Your task to perform on an android device: Search for lg ultragear on amazon.com, select the first entry, add it to the cart, then select checkout. Image 0: 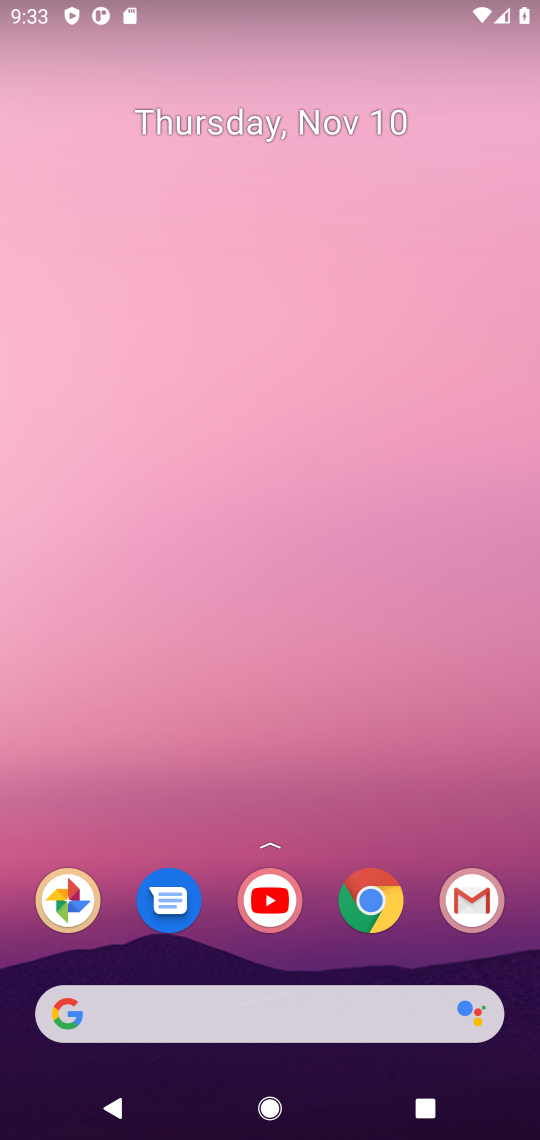
Step 0: click (375, 901)
Your task to perform on an android device: Search for lg ultragear on amazon.com, select the first entry, add it to the cart, then select checkout. Image 1: 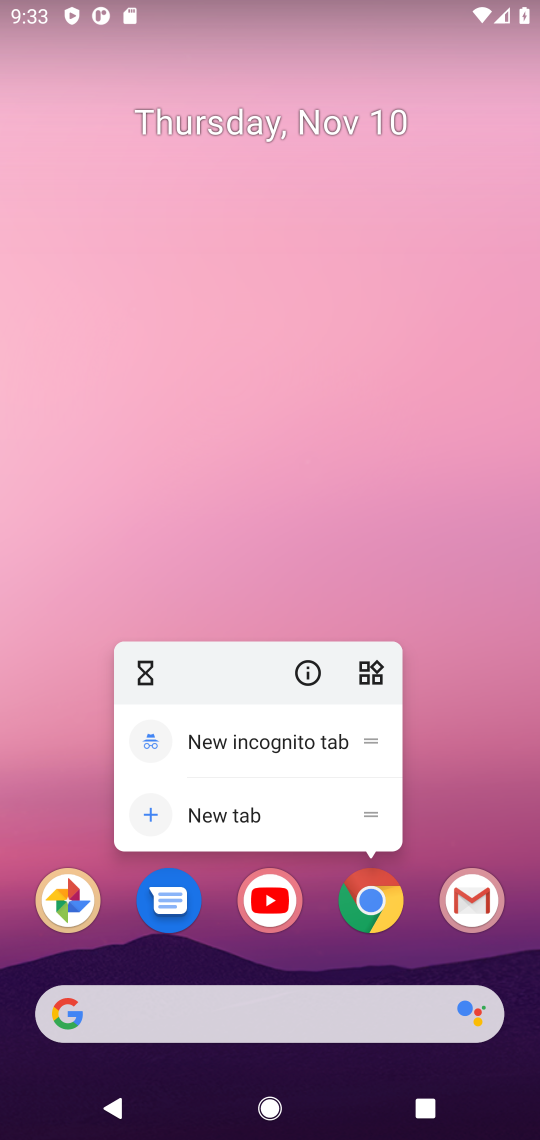
Step 1: click (362, 903)
Your task to perform on an android device: Search for lg ultragear on amazon.com, select the first entry, add it to the cart, then select checkout. Image 2: 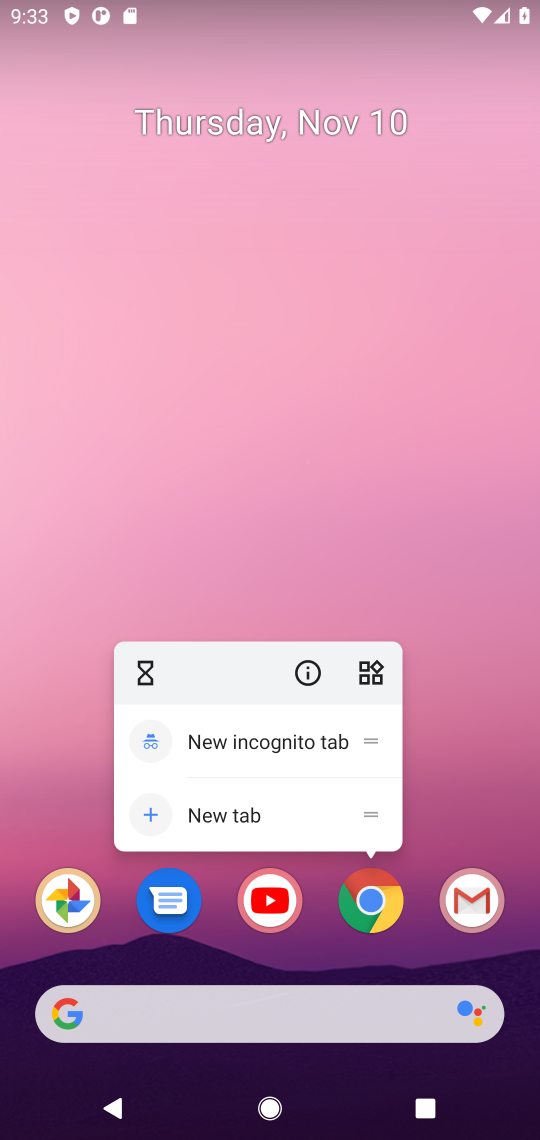
Step 2: click (362, 905)
Your task to perform on an android device: Search for lg ultragear on amazon.com, select the first entry, add it to the cart, then select checkout. Image 3: 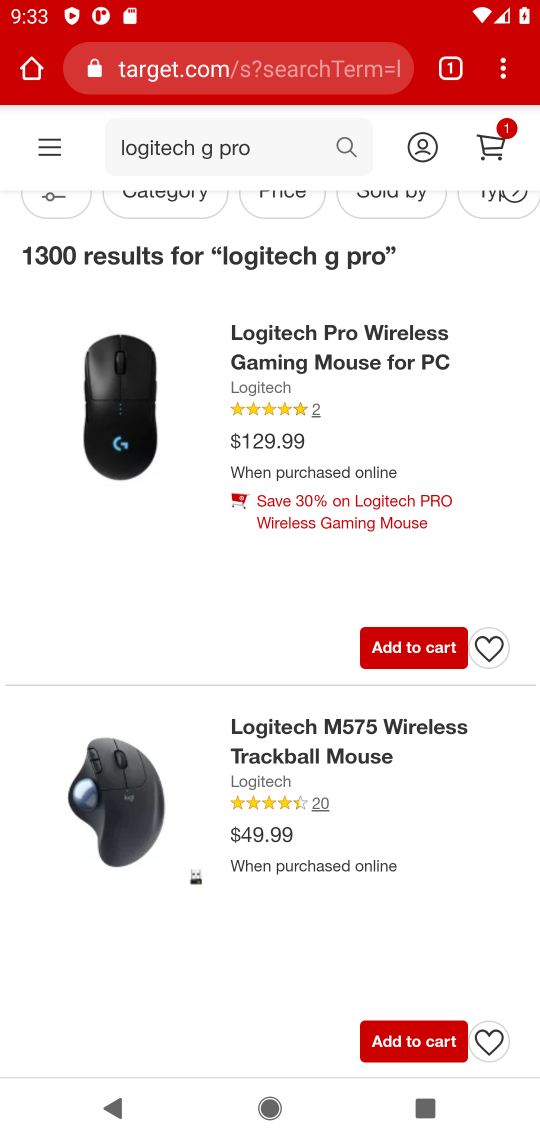
Step 3: click (281, 69)
Your task to perform on an android device: Search for lg ultragear on amazon.com, select the first entry, add it to the cart, then select checkout. Image 4: 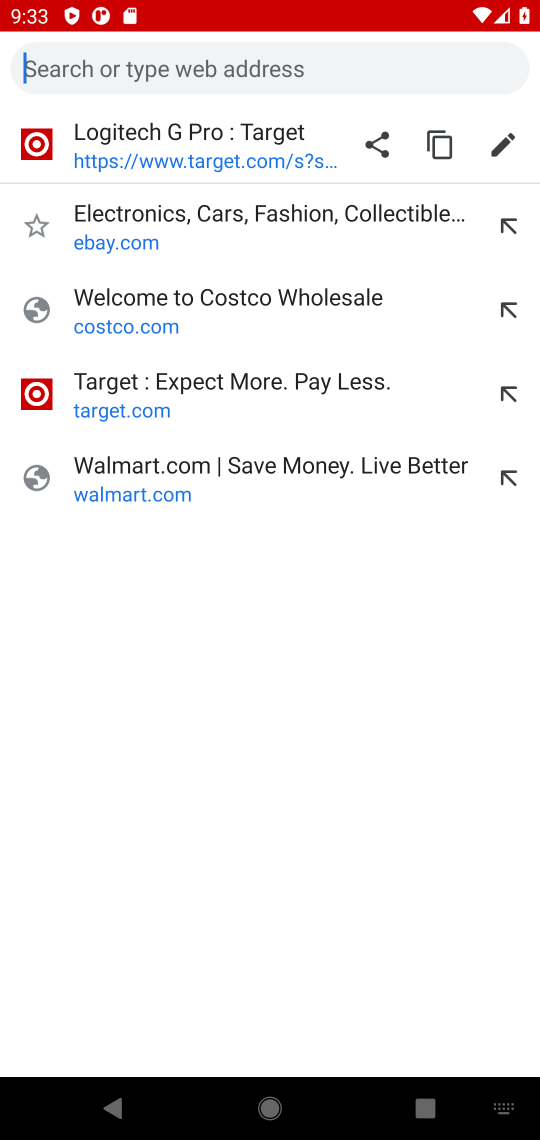
Step 4: type "amazon.com"
Your task to perform on an android device: Search for lg ultragear on amazon.com, select the first entry, add it to the cart, then select checkout. Image 5: 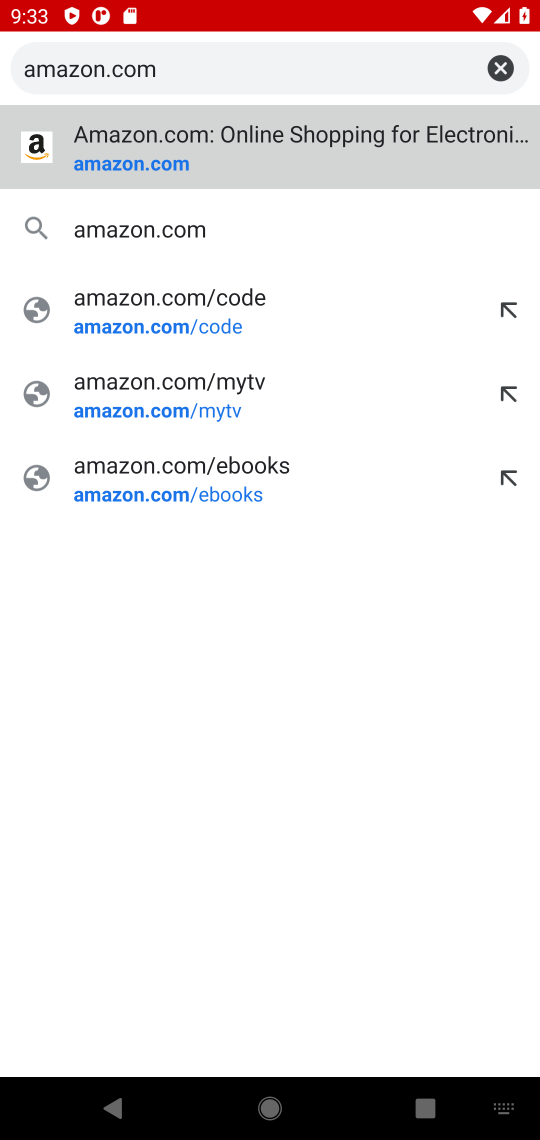
Step 5: press enter
Your task to perform on an android device: Search for lg ultragear on amazon.com, select the first entry, add it to the cart, then select checkout. Image 6: 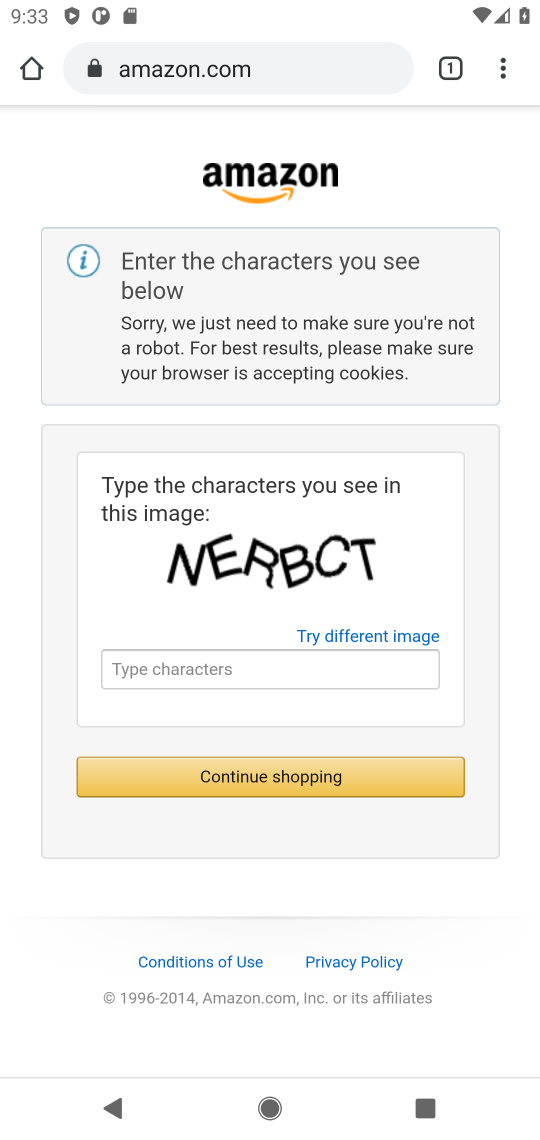
Step 6: click (177, 662)
Your task to perform on an android device: Search for lg ultragear on amazon.com, select the first entry, add it to the cart, then select checkout. Image 7: 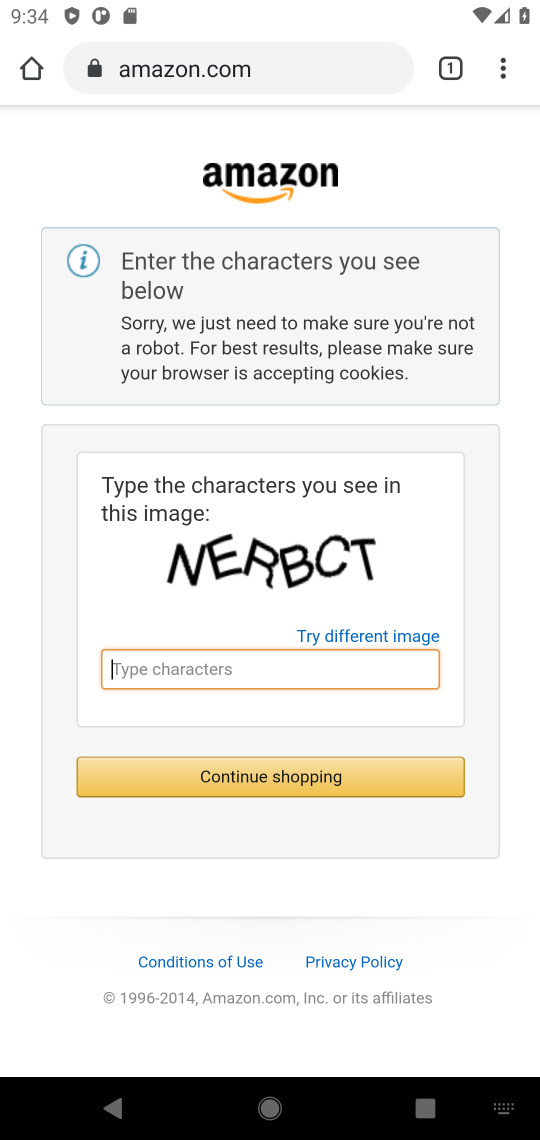
Step 7: type "NERBCT"
Your task to perform on an android device: Search for lg ultragear on amazon.com, select the first entry, add it to the cart, then select checkout. Image 8: 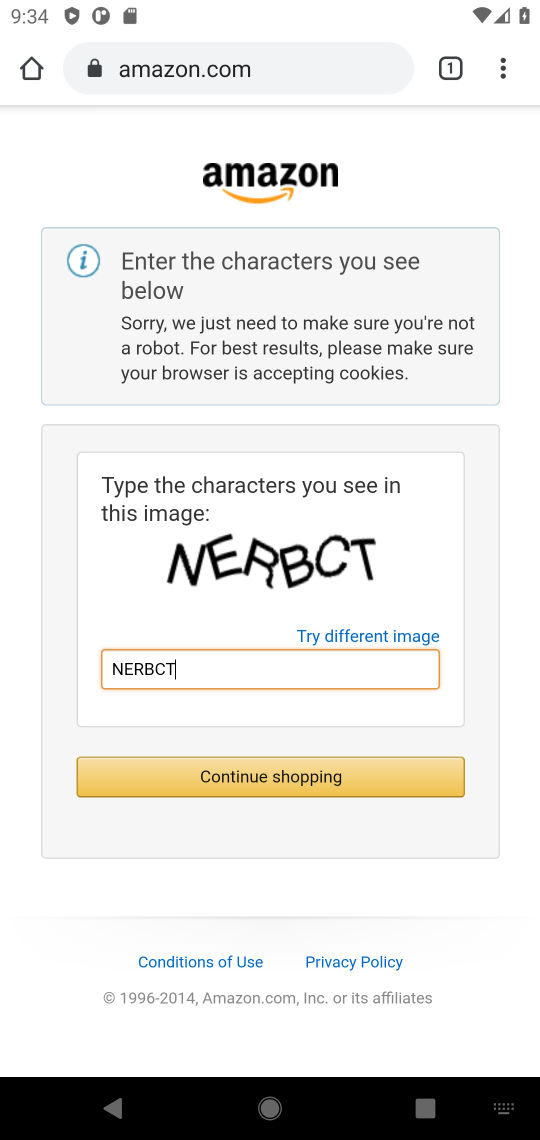
Step 8: press enter
Your task to perform on an android device: Search for lg ultragear on amazon.com, select the first entry, add it to the cart, then select checkout. Image 9: 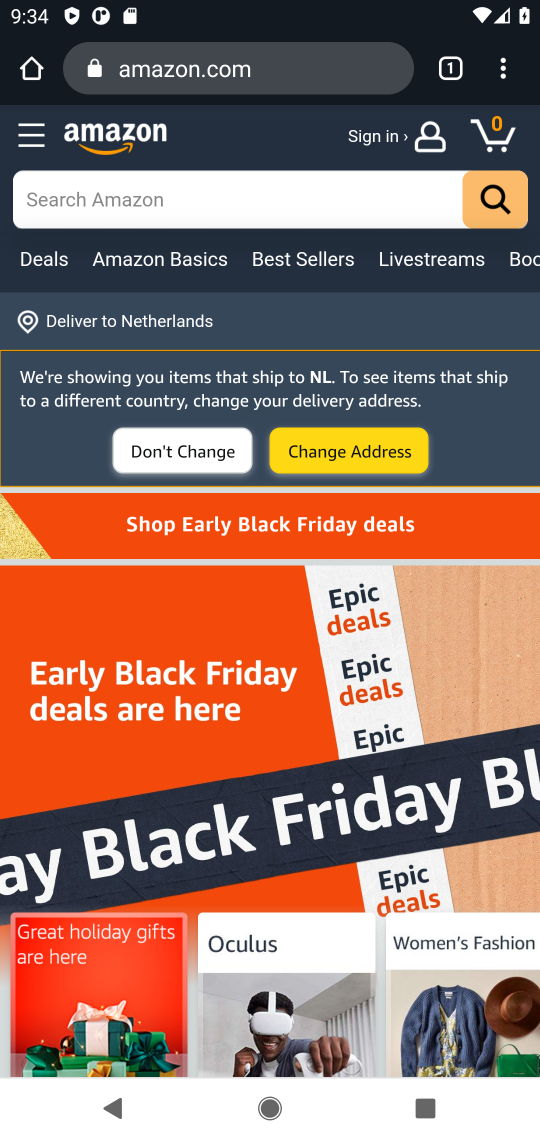
Step 9: click (125, 188)
Your task to perform on an android device: Search for lg ultragear on amazon.com, select the first entry, add it to the cart, then select checkout. Image 10: 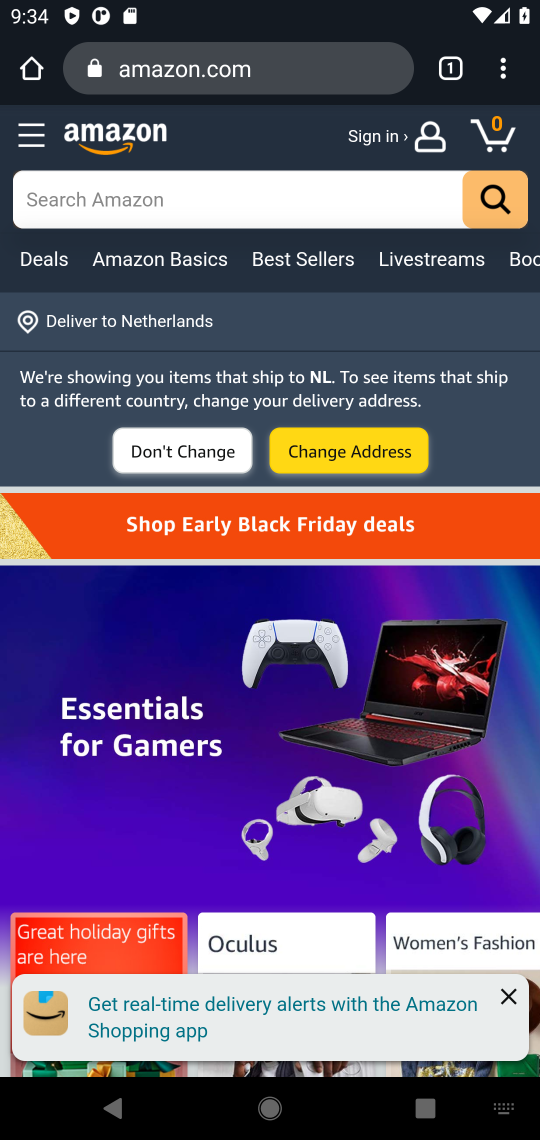
Step 10: press enter
Your task to perform on an android device: Search for lg ultragear on amazon.com, select the first entry, add it to the cart, then select checkout. Image 11: 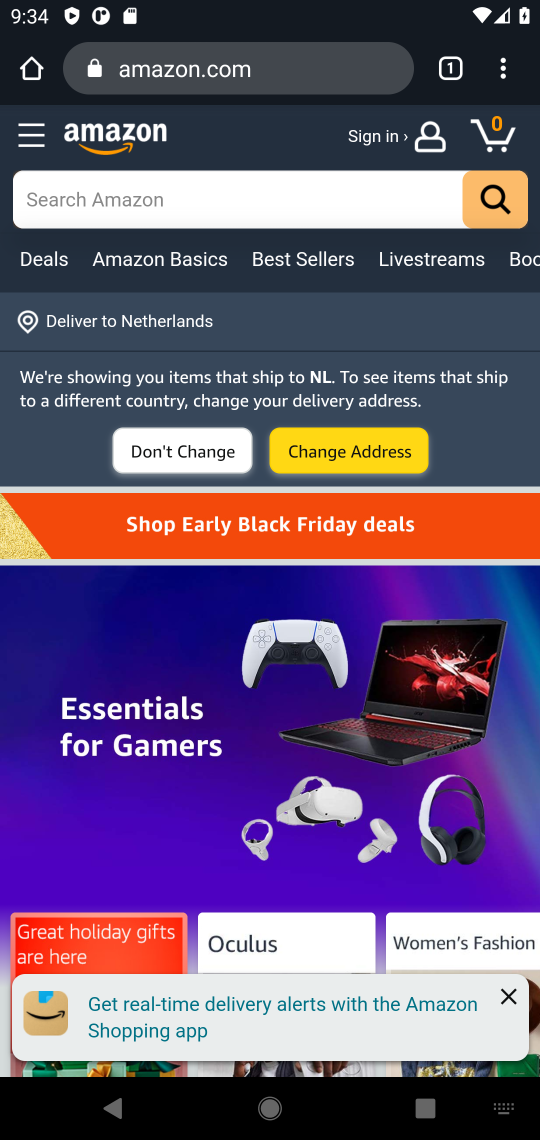
Step 11: type "lg ultragear"
Your task to perform on an android device: Search for lg ultragear on amazon.com, select the first entry, add it to the cart, then select checkout. Image 12: 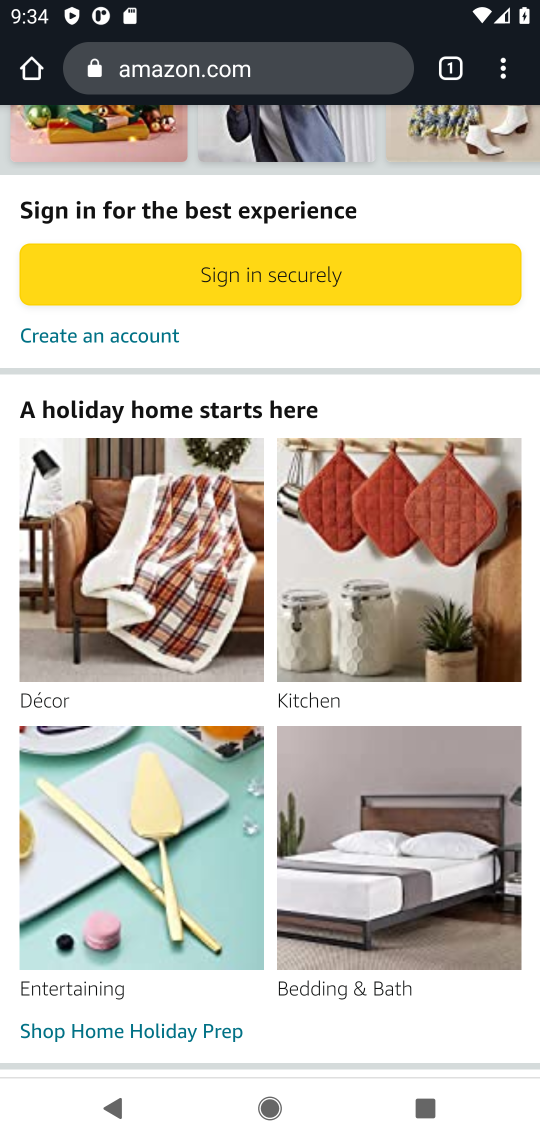
Step 12: drag from (419, 137) to (421, 873)
Your task to perform on an android device: Search for lg ultragear on amazon.com, select the first entry, add it to the cart, then select checkout. Image 13: 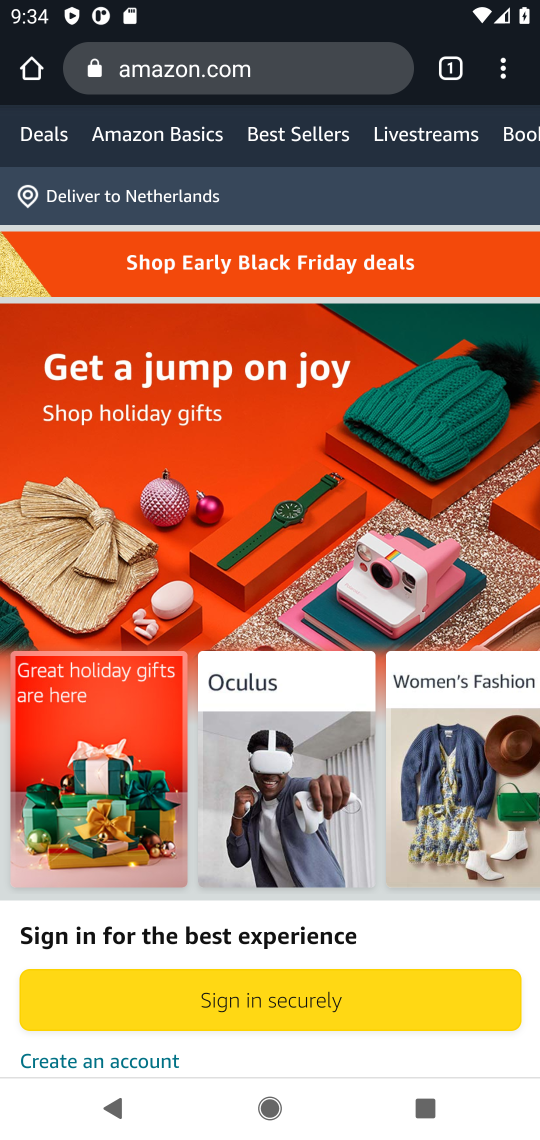
Step 13: drag from (288, 369) to (196, 858)
Your task to perform on an android device: Search for lg ultragear on amazon.com, select the first entry, add it to the cart, then select checkout. Image 14: 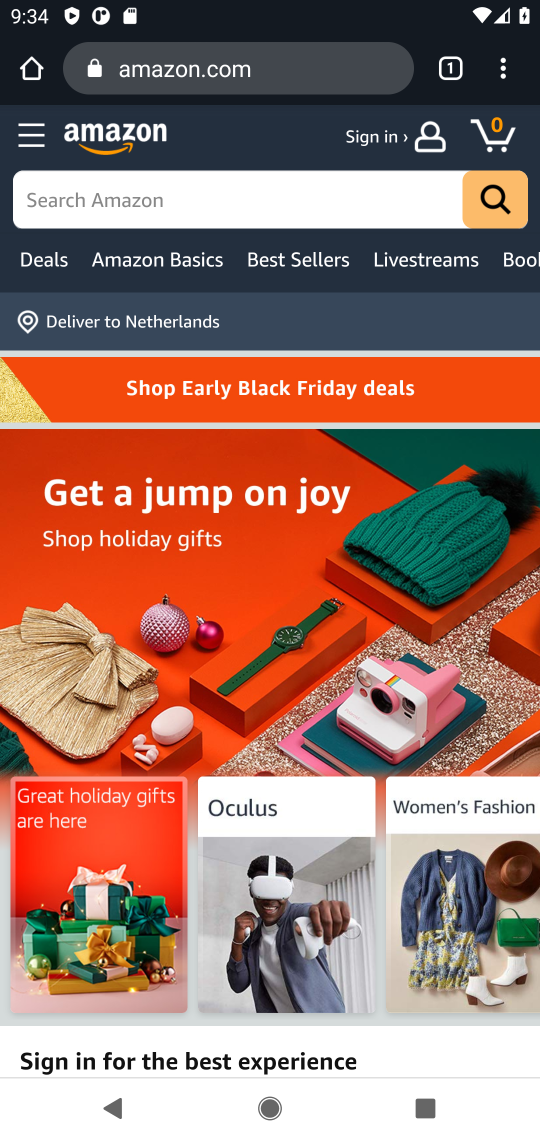
Step 14: click (155, 183)
Your task to perform on an android device: Search for lg ultragear on amazon.com, select the first entry, add it to the cart, then select checkout. Image 15: 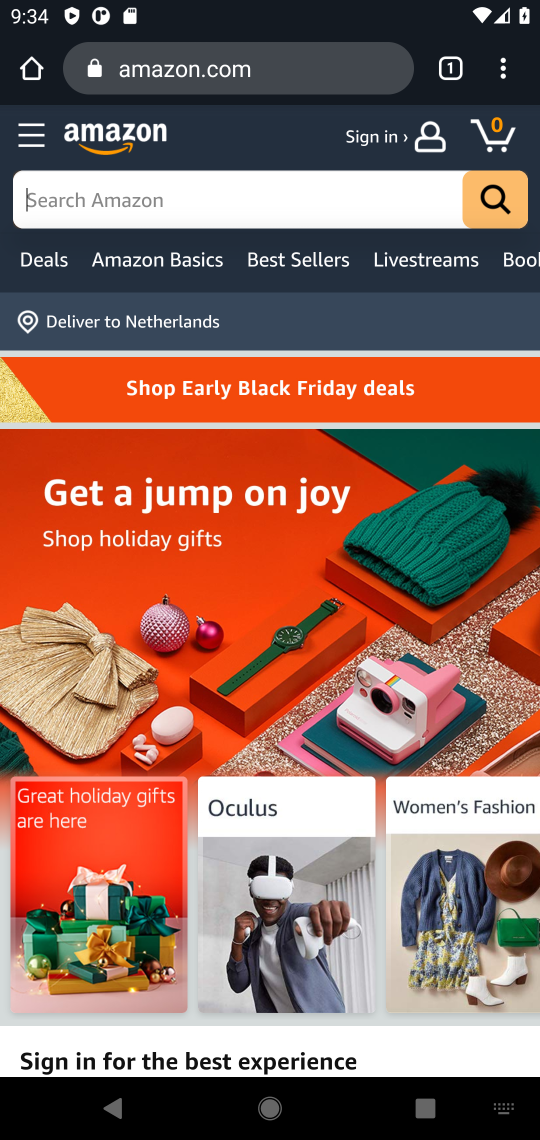
Step 15: click (135, 202)
Your task to perform on an android device: Search for lg ultragear on amazon.com, select the first entry, add it to the cart, then select checkout. Image 16: 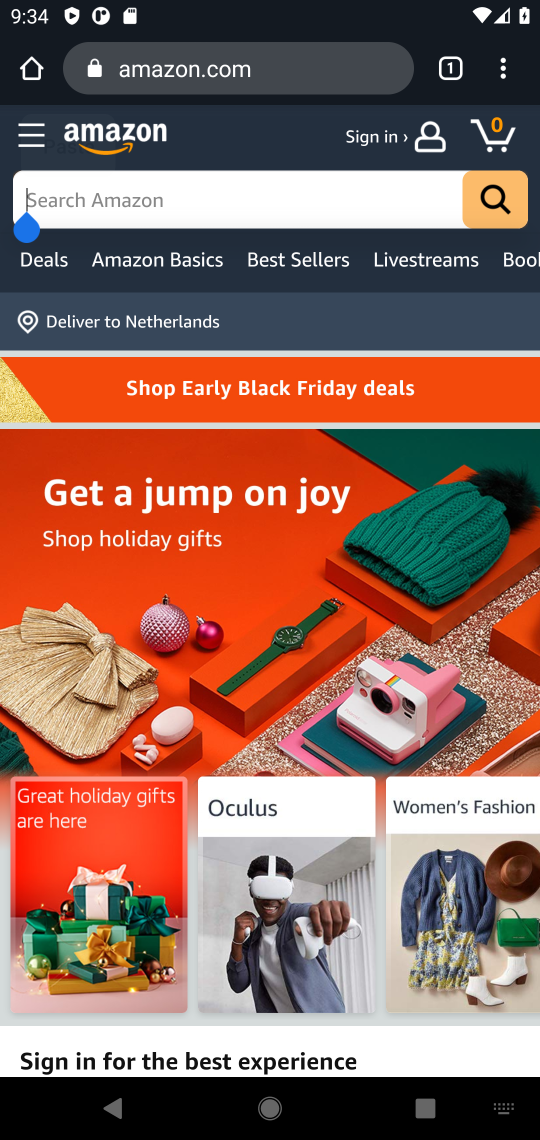
Step 16: click (70, 197)
Your task to perform on an android device: Search for lg ultragear on amazon.com, select the first entry, add it to the cart, then select checkout. Image 17: 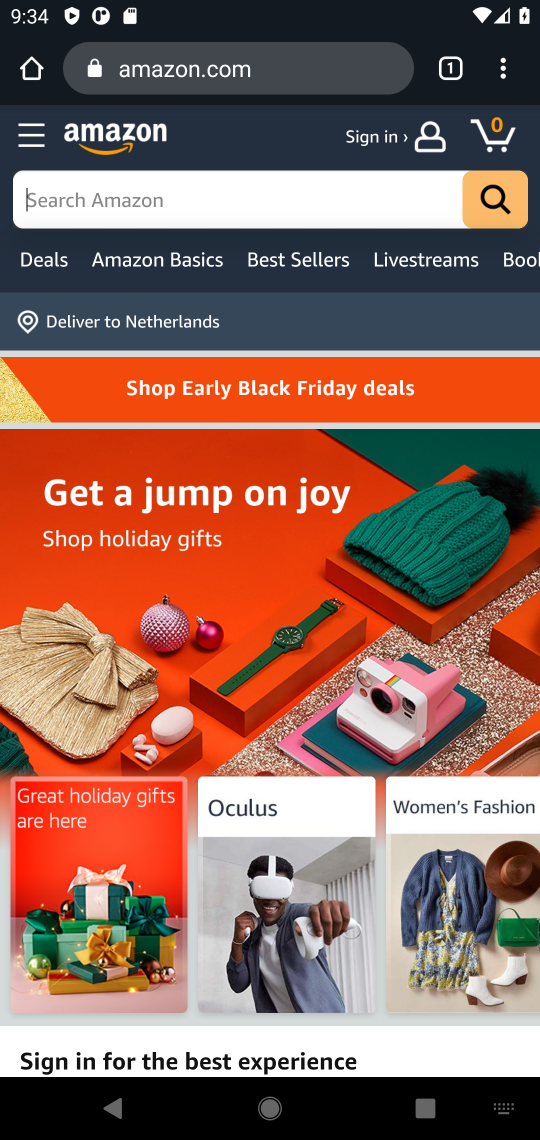
Step 17: type "lg ultragear"
Your task to perform on an android device: Search for lg ultragear on amazon.com, select the first entry, add it to the cart, then select checkout. Image 18: 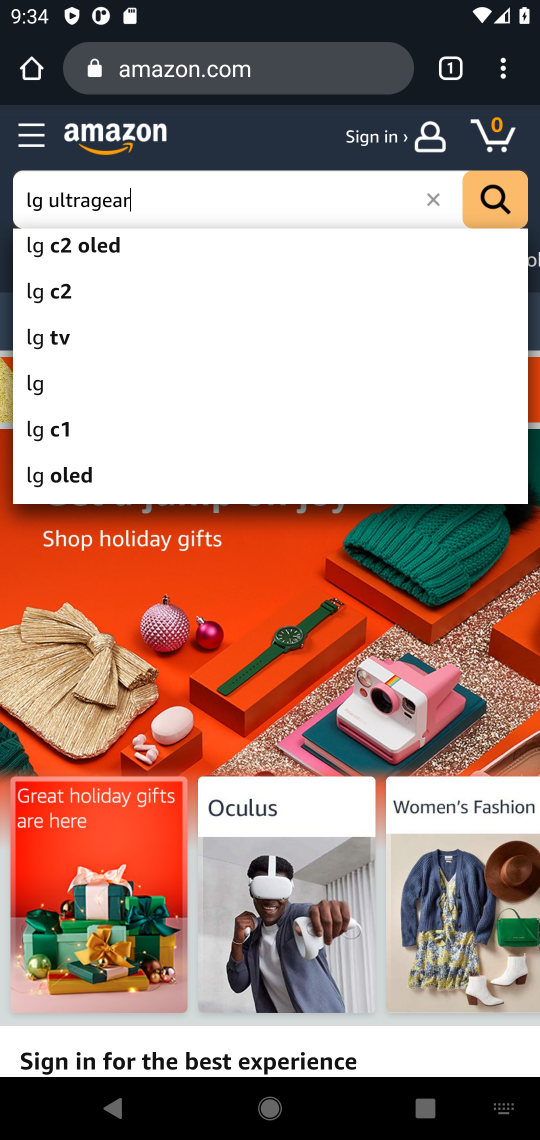
Step 18: press enter
Your task to perform on an android device: Search for lg ultragear on amazon.com, select the first entry, add it to the cart, then select checkout. Image 19: 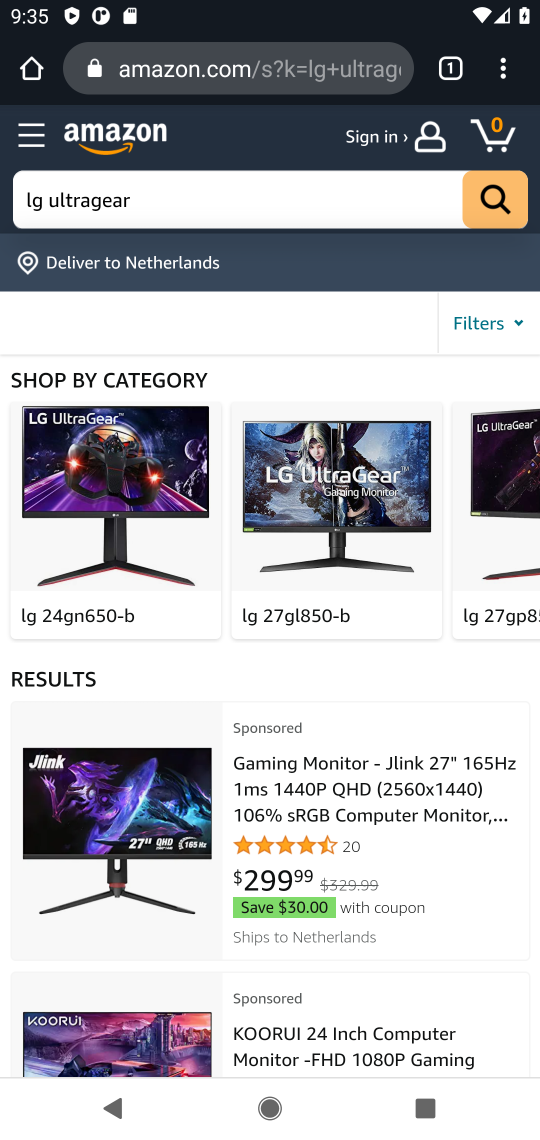
Step 19: task complete